Your task to perform on an android device: toggle priority inbox in the gmail app Image 0: 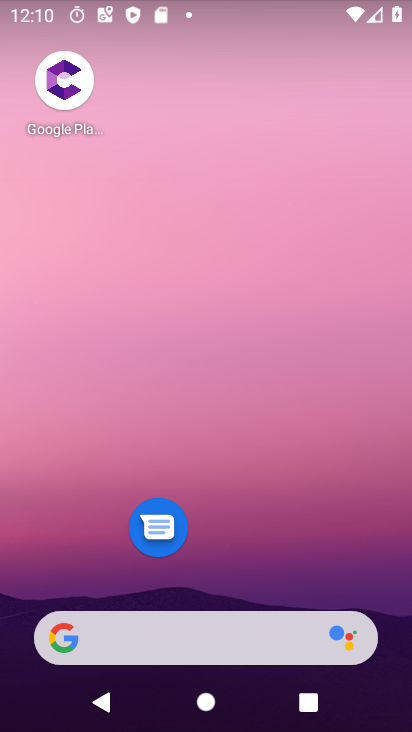
Step 0: drag from (234, 578) to (307, 63)
Your task to perform on an android device: toggle priority inbox in the gmail app Image 1: 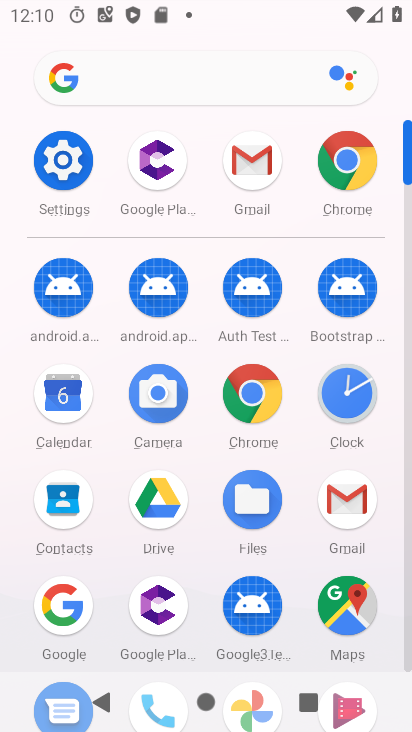
Step 1: click (319, 492)
Your task to perform on an android device: toggle priority inbox in the gmail app Image 2: 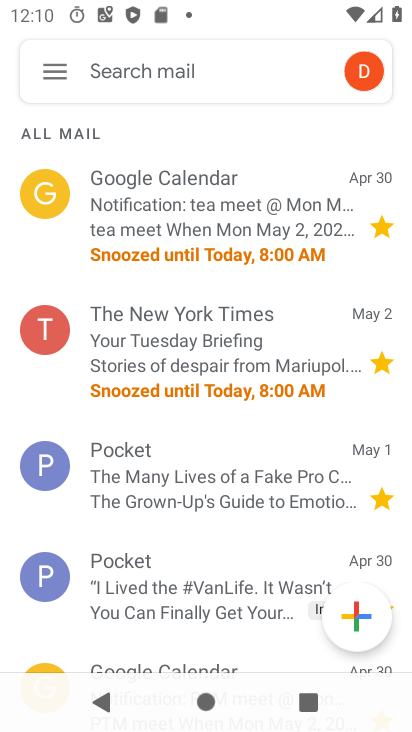
Step 2: click (56, 70)
Your task to perform on an android device: toggle priority inbox in the gmail app Image 3: 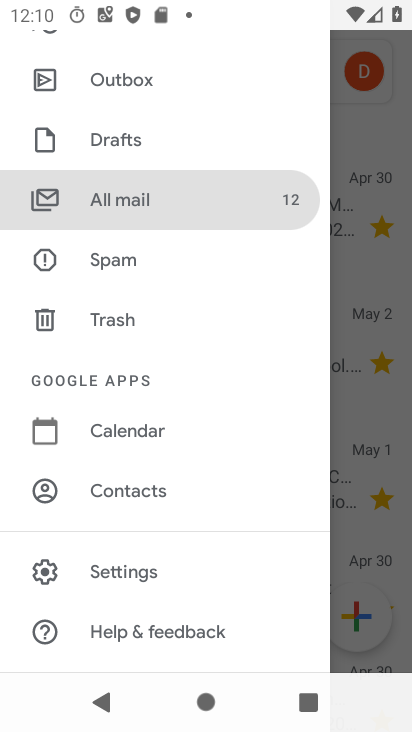
Step 3: click (61, 66)
Your task to perform on an android device: toggle priority inbox in the gmail app Image 4: 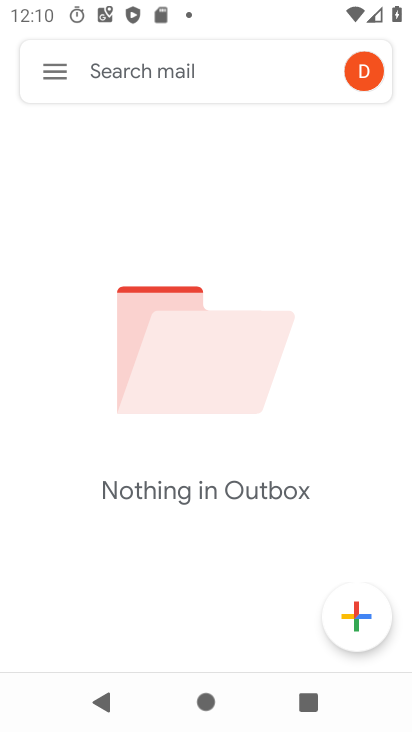
Step 4: click (51, 80)
Your task to perform on an android device: toggle priority inbox in the gmail app Image 5: 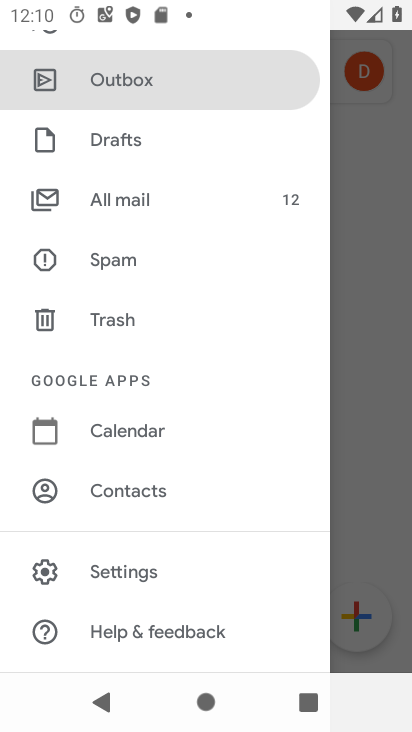
Step 5: click (131, 580)
Your task to perform on an android device: toggle priority inbox in the gmail app Image 6: 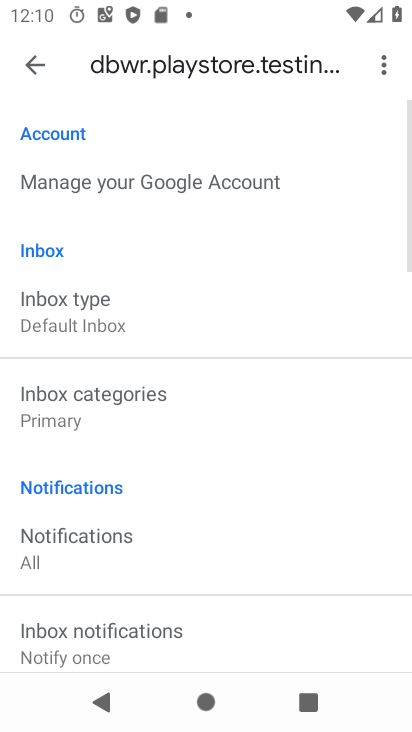
Step 6: click (128, 321)
Your task to perform on an android device: toggle priority inbox in the gmail app Image 7: 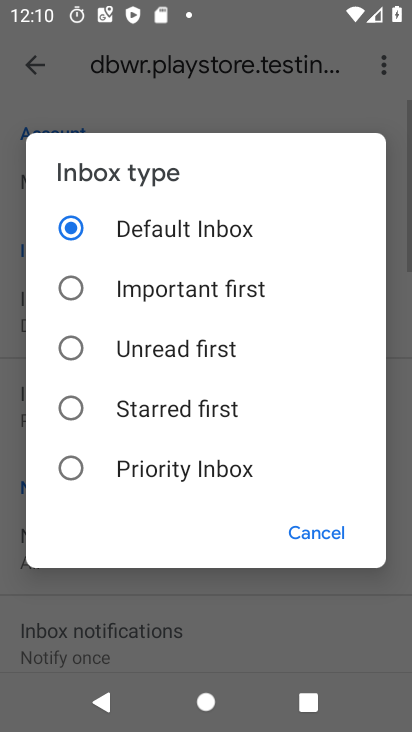
Step 7: click (70, 470)
Your task to perform on an android device: toggle priority inbox in the gmail app Image 8: 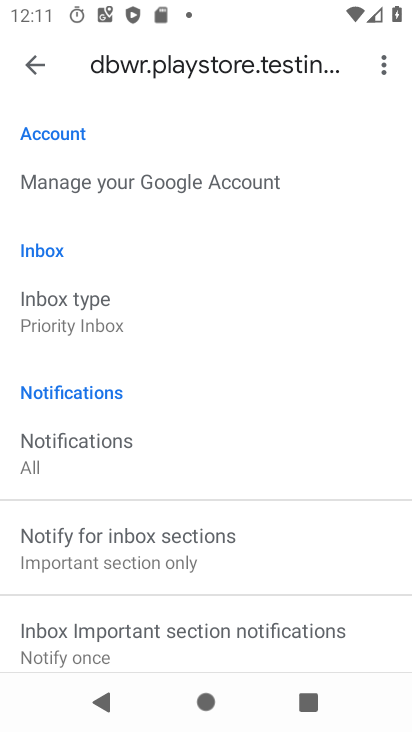
Step 8: task complete